Your task to perform on an android device: Go to internet settings Image 0: 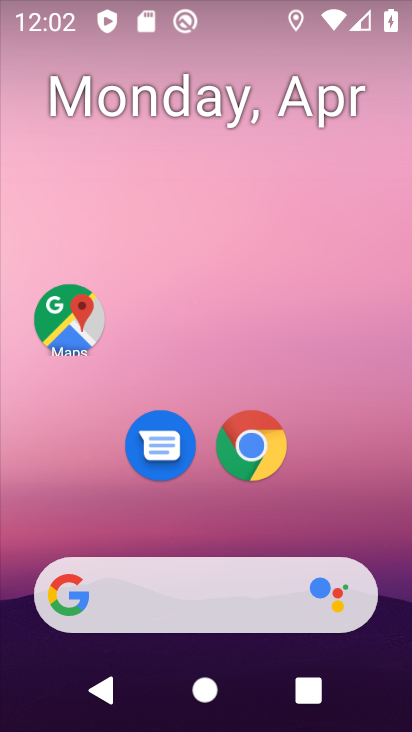
Step 0: drag from (357, 516) to (244, 95)
Your task to perform on an android device: Go to internet settings Image 1: 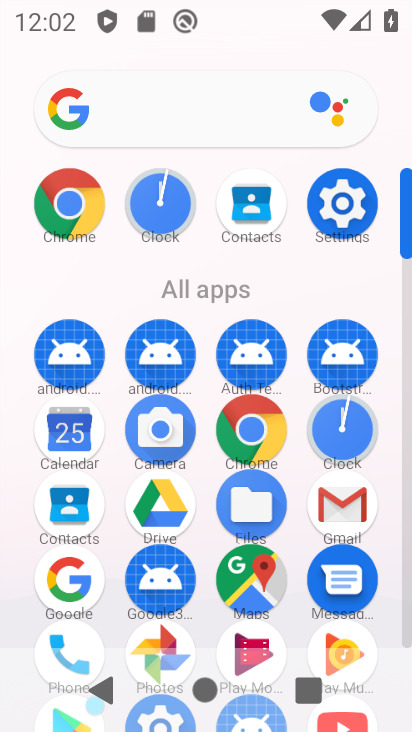
Step 1: click (333, 218)
Your task to perform on an android device: Go to internet settings Image 2: 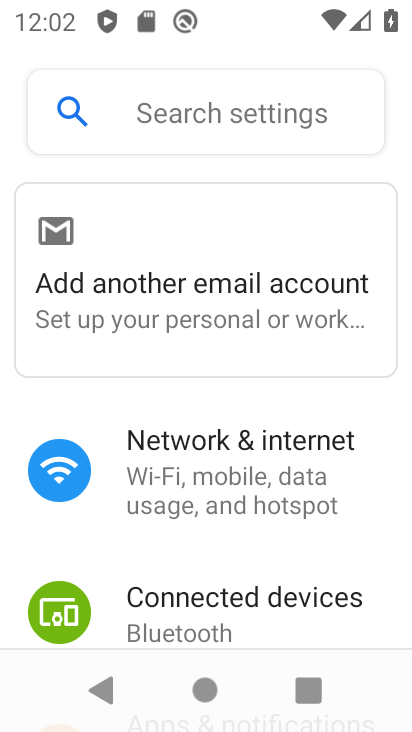
Step 2: click (273, 459)
Your task to perform on an android device: Go to internet settings Image 3: 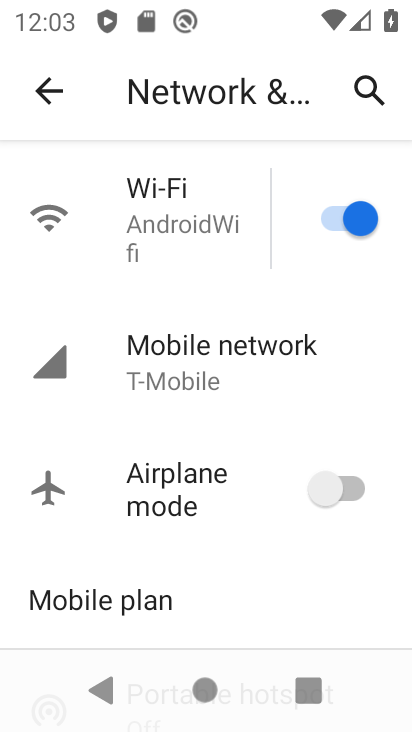
Step 3: task complete